Your task to perform on an android device: turn on notifications settings in the gmail app Image 0: 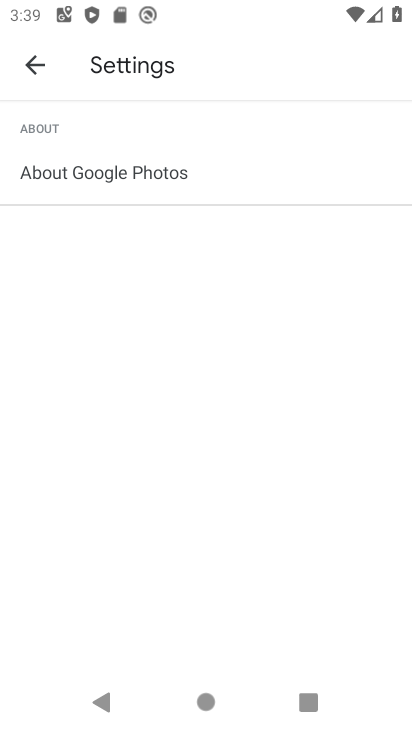
Step 0: press home button
Your task to perform on an android device: turn on notifications settings in the gmail app Image 1: 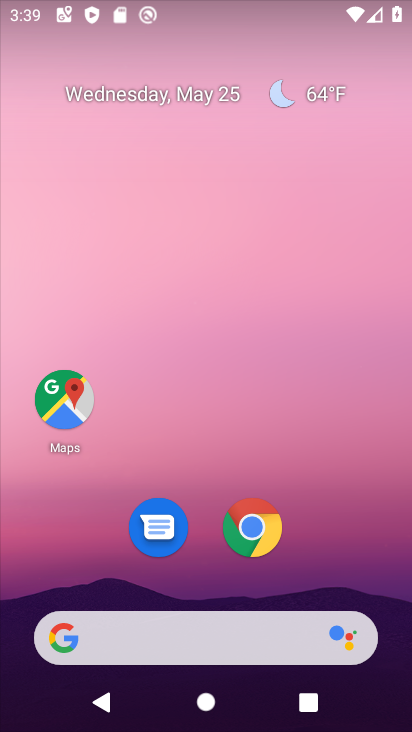
Step 1: drag from (195, 545) to (264, 81)
Your task to perform on an android device: turn on notifications settings in the gmail app Image 2: 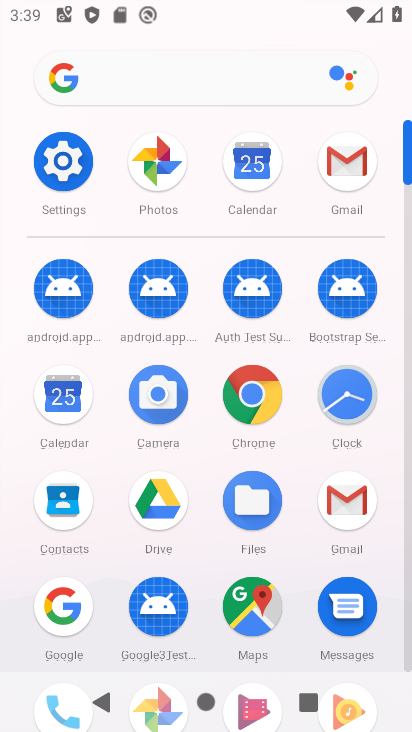
Step 2: click (333, 169)
Your task to perform on an android device: turn on notifications settings in the gmail app Image 3: 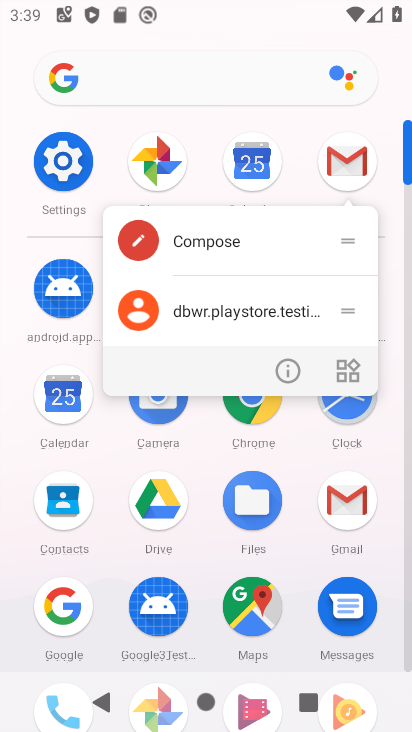
Step 3: click (285, 376)
Your task to perform on an android device: turn on notifications settings in the gmail app Image 4: 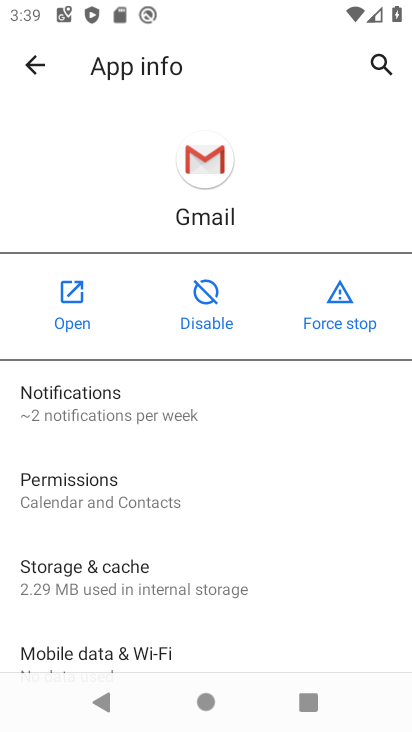
Step 4: click (117, 423)
Your task to perform on an android device: turn on notifications settings in the gmail app Image 5: 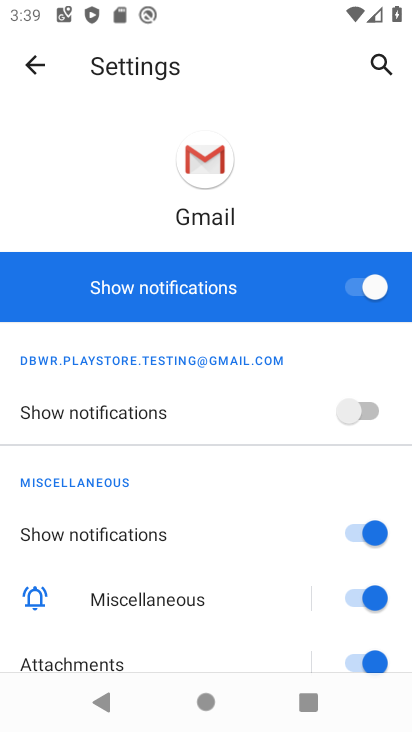
Step 5: task complete